Your task to perform on an android device: Open internet settings Image 0: 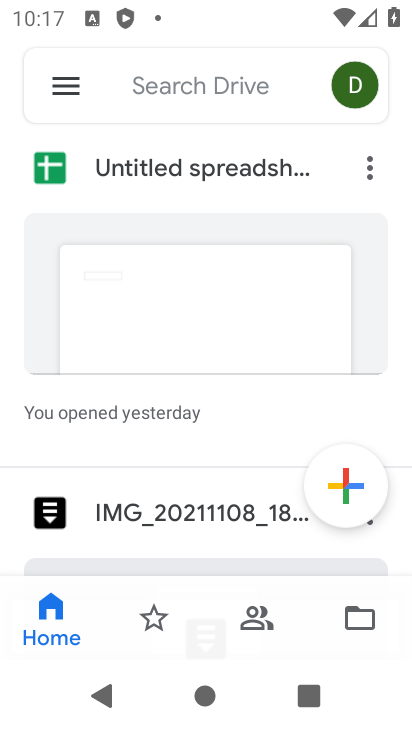
Step 0: press home button
Your task to perform on an android device: Open internet settings Image 1: 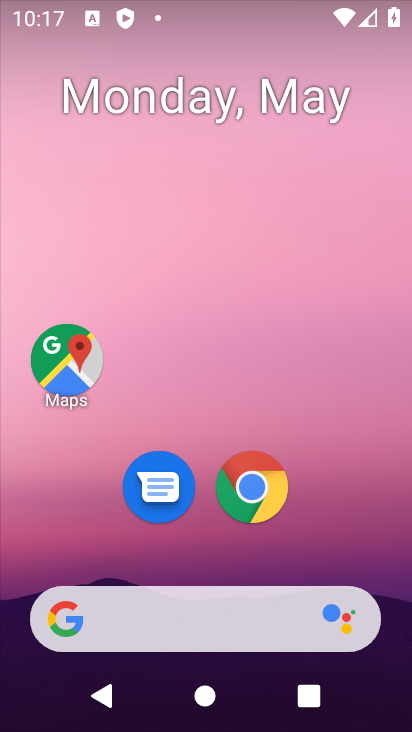
Step 1: drag from (301, 551) to (257, 124)
Your task to perform on an android device: Open internet settings Image 2: 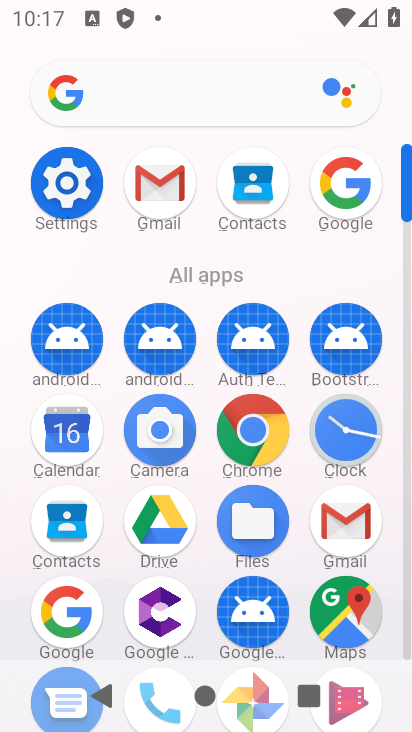
Step 2: click (74, 175)
Your task to perform on an android device: Open internet settings Image 3: 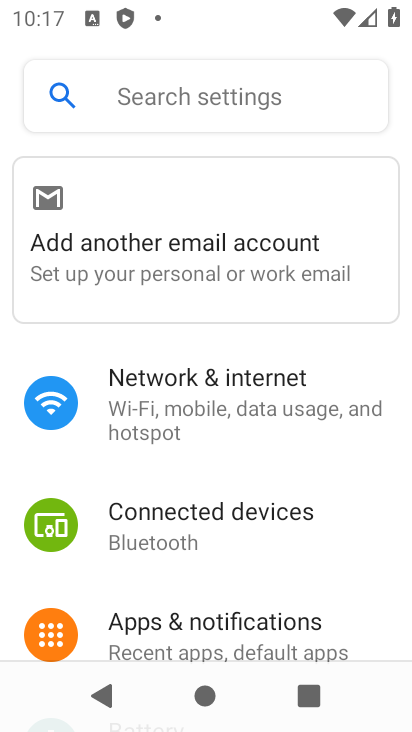
Step 3: click (150, 409)
Your task to perform on an android device: Open internet settings Image 4: 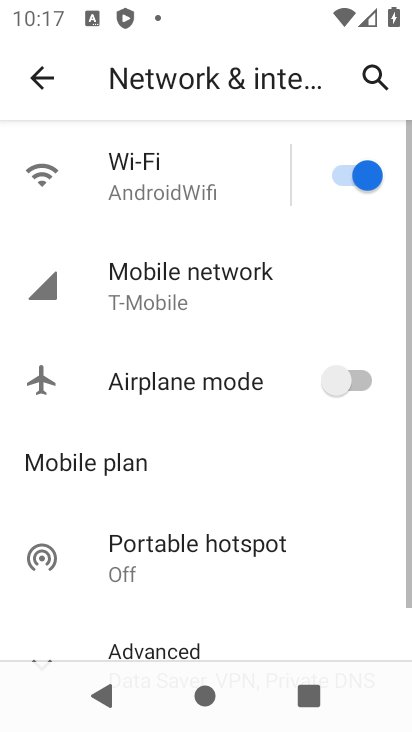
Step 4: click (140, 266)
Your task to perform on an android device: Open internet settings Image 5: 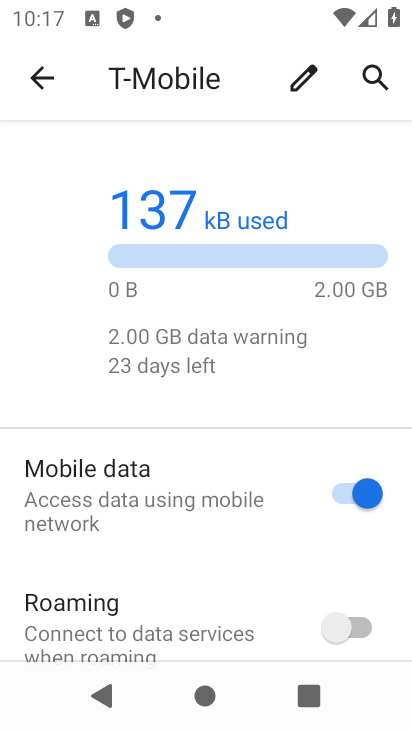
Step 5: task complete